Your task to perform on an android device: Go to location settings Image 0: 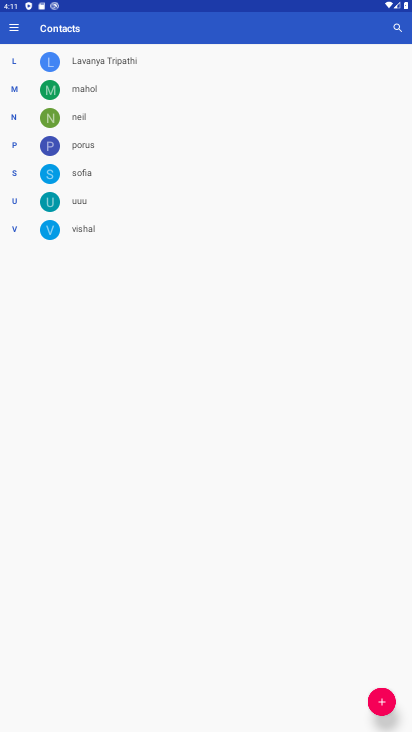
Step 0: press home button
Your task to perform on an android device: Go to location settings Image 1: 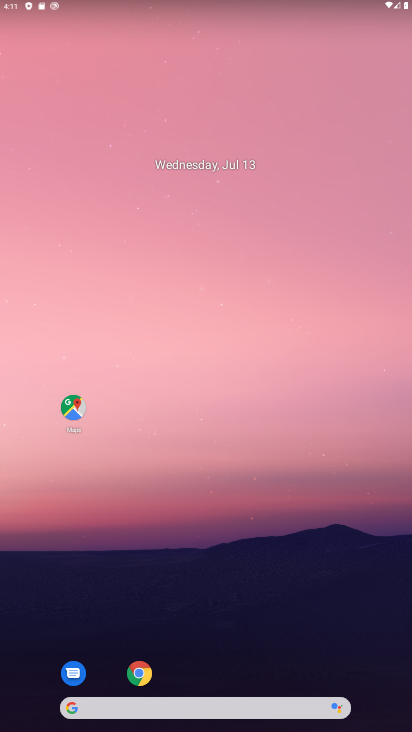
Step 1: drag from (264, 644) to (258, 51)
Your task to perform on an android device: Go to location settings Image 2: 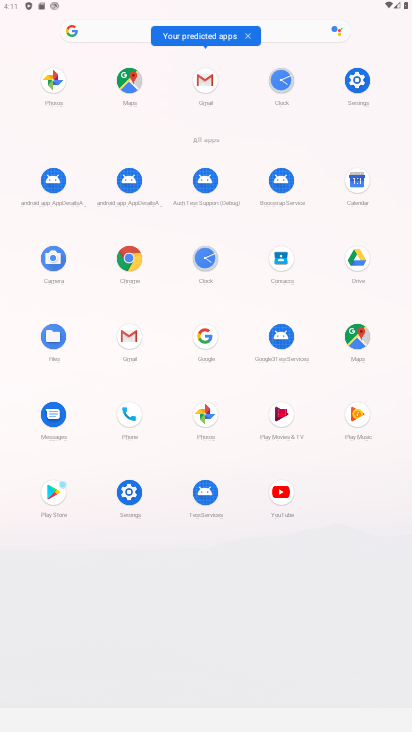
Step 2: click (354, 78)
Your task to perform on an android device: Go to location settings Image 3: 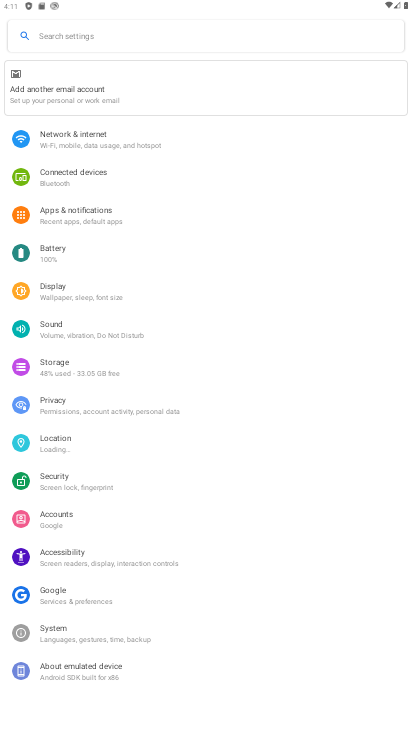
Step 3: click (111, 439)
Your task to perform on an android device: Go to location settings Image 4: 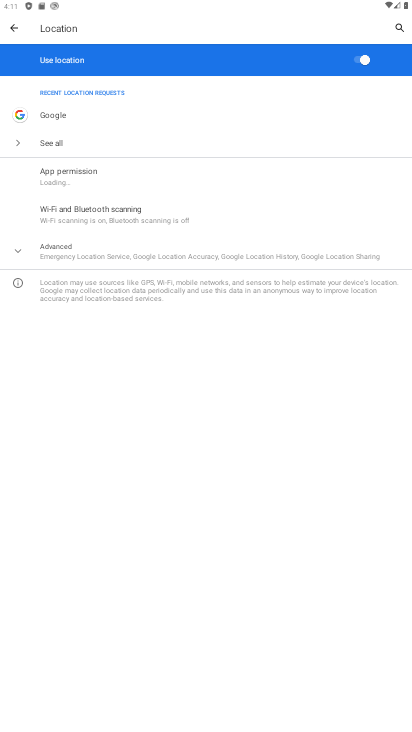
Step 4: task complete